Your task to perform on an android device: turn on wifi Image 0: 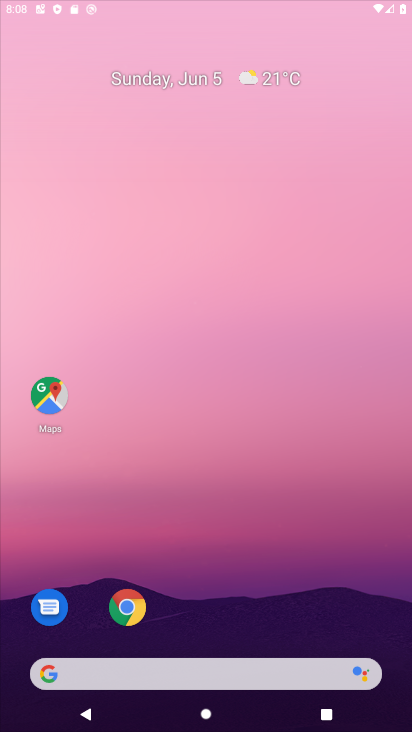
Step 0: drag from (248, 515) to (253, 217)
Your task to perform on an android device: turn on wifi Image 1: 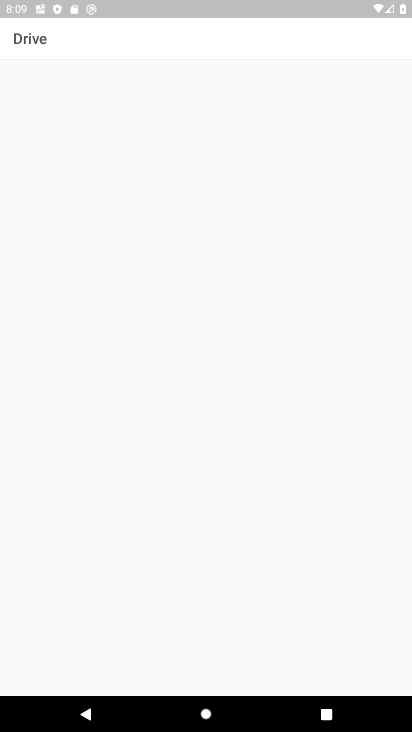
Step 1: press home button
Your task to perform on an android device: turn on wifi Image 2: 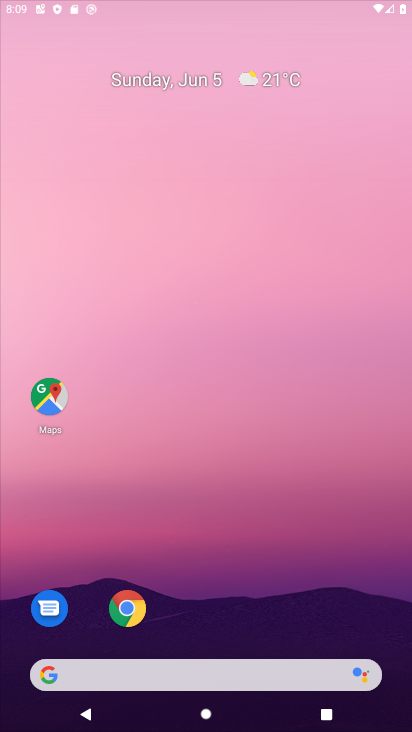
Step 2: drag from (302, 555) to (265, 144)
Your task to perform on an android device: turn on wifi Image 3: 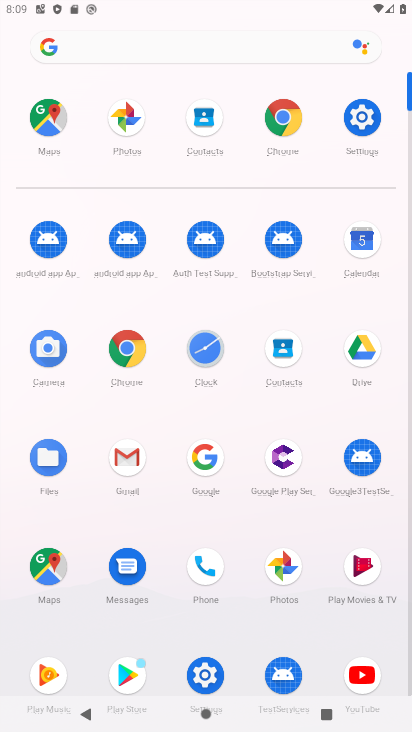
Step 3: click (371, 121)
Your task to perform on an android device: turn on wifi Image 4: 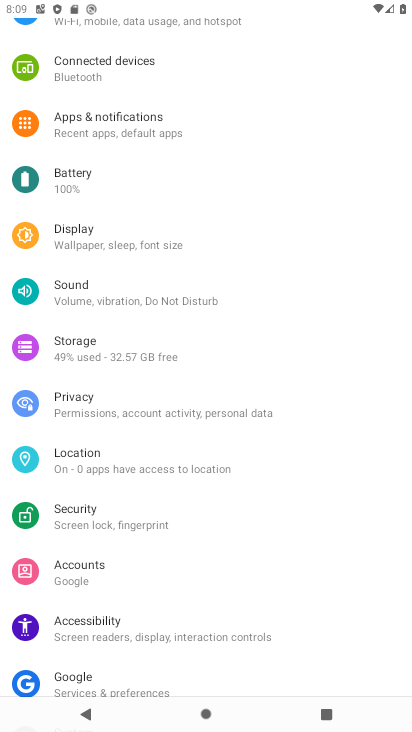
Step 4: drag from (205, 182) to (208, 551)
Your task to perform on an android device: turn on wifi Image 5: 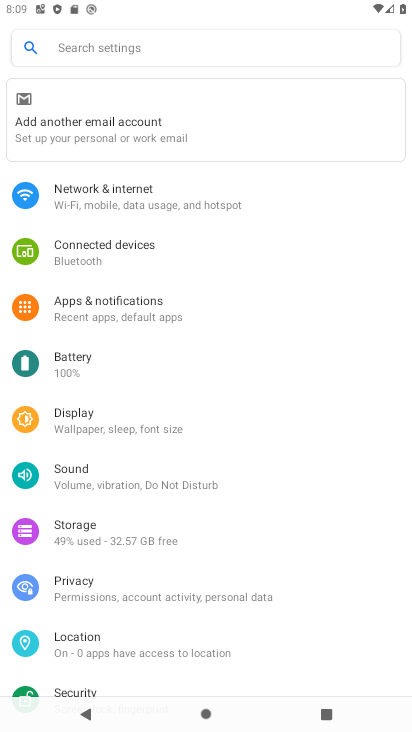
Step 5: click (136, 223)
Your task to perform on an android device: turn on wifi Image 6: 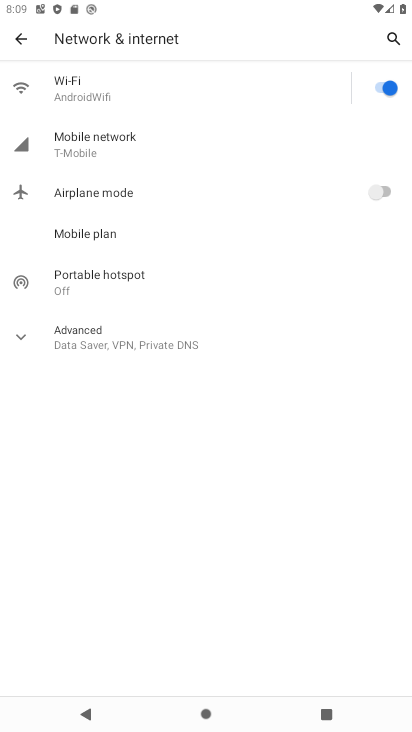
Step 6: task complete